Your task to perform on an android device: Play the last video I watched on Youtube Image 0: 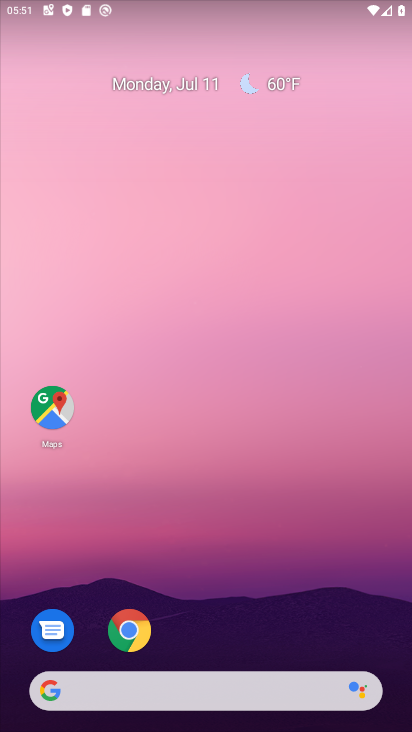
Step 0: drag from (175, 594) to (261, 7)
Your task to perform on an android device: Play the last video I watched on Youtube Image 1: 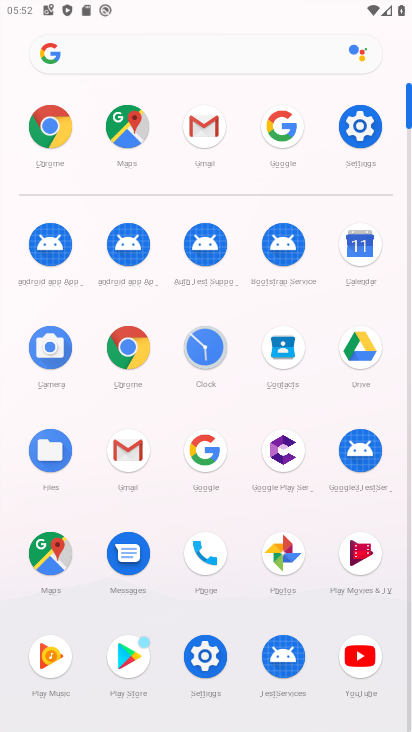
Step 1: click (362, 667)
Your task to perform on an android device: Play the last video I watched on Youtube Image 2: 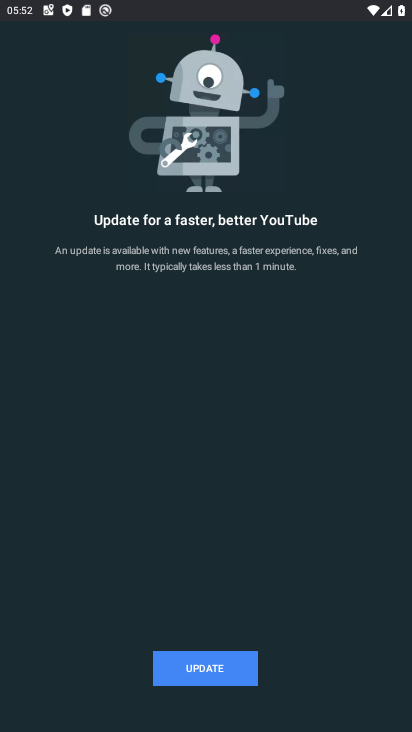
Step 2: click (193, 674)
Your task to perform on an android device: Play the last video I watched on Youtube Image 3: 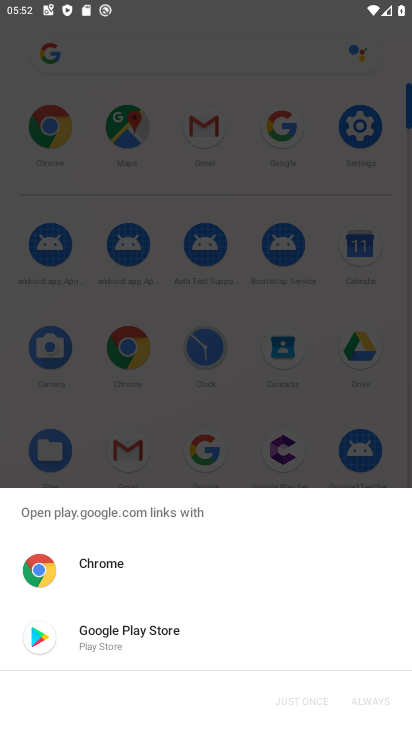
Step 3: click (142, 649)
Your task to perform on an android device: Play the last video I watched on Youtube Image 4: 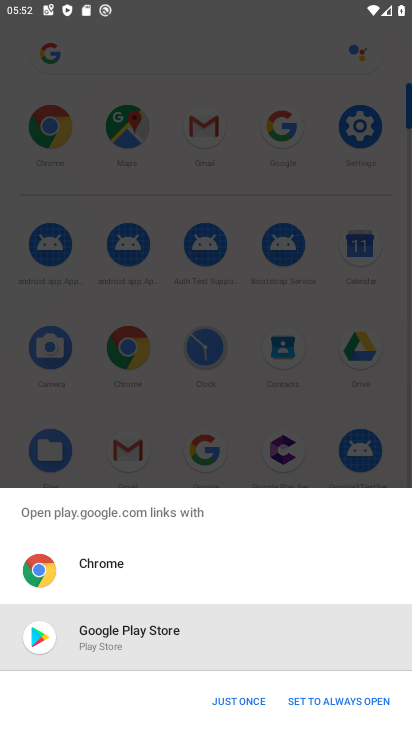
Step 4: click (321, 689)
Your task to perform on an android device: Play the last video I watched on Youtube Image 5: 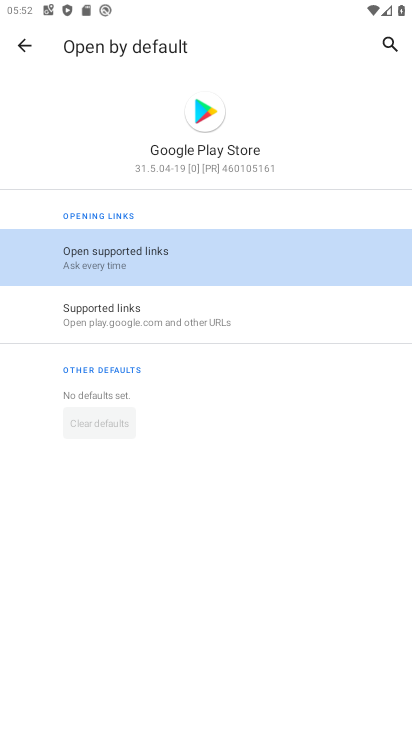
Step 5: click (191, 254)
Your task to perform on an android device: Play the last video I watched on Youtube Image 6: 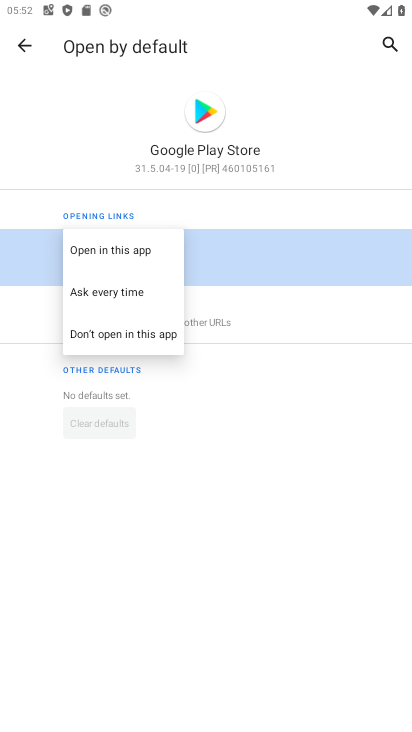
Step 6: click (140, 248)
Your task to perform on an android device: Play the last video I watched on Youtube Image 7: 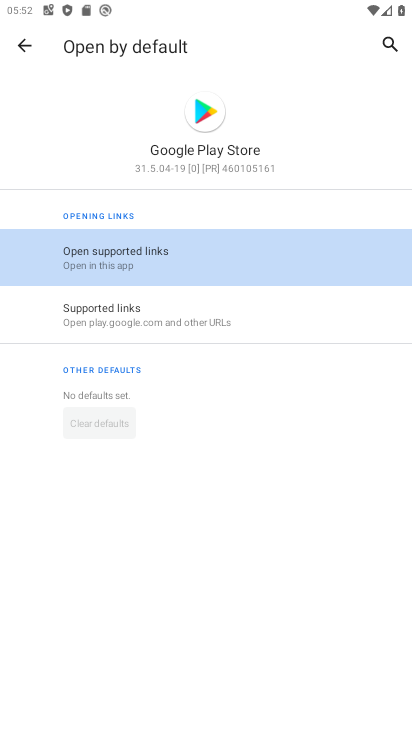
Step 7: click (24, 47)
Your task to perform on an android device: Play the last video I watched on Youtube Image 8: 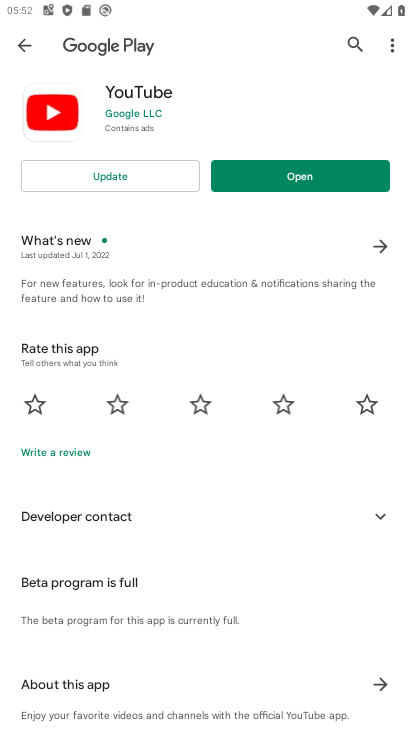
Step 8: click (112, 166)
Your task to perform on an android device: Play the last video I watched on Youtube Image 9: 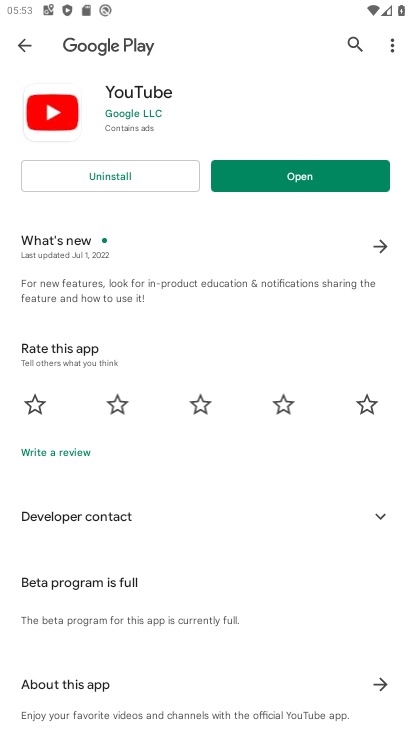
Step 9: click (273, 176)
Your task to perform on an android device: Play the last video I watched on Youtube Image 10: 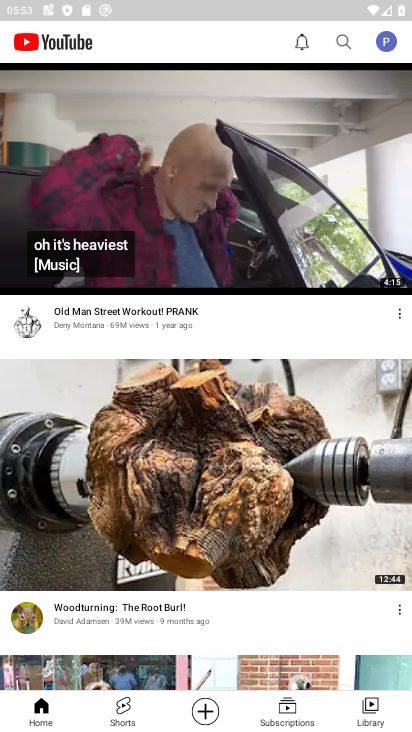
Step 10: click (385, 714)
Your task to perform on an android device: Play the last video I watched on Youtube Image 11: 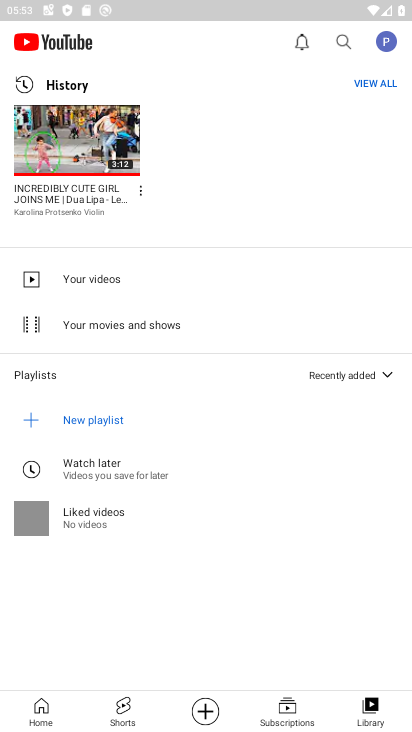
Step 11: task complete